Your task to perform on an android device: turn off picture-in-picture Image 0: 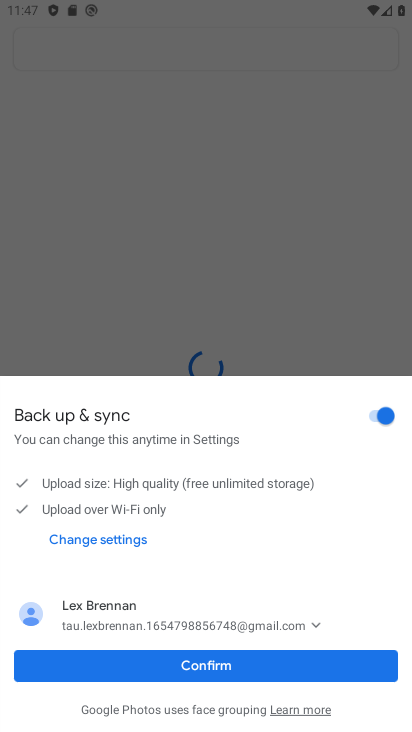
Step 0: press home button
Your task to perform on an android device: turn off picture-in-picture Image 1: 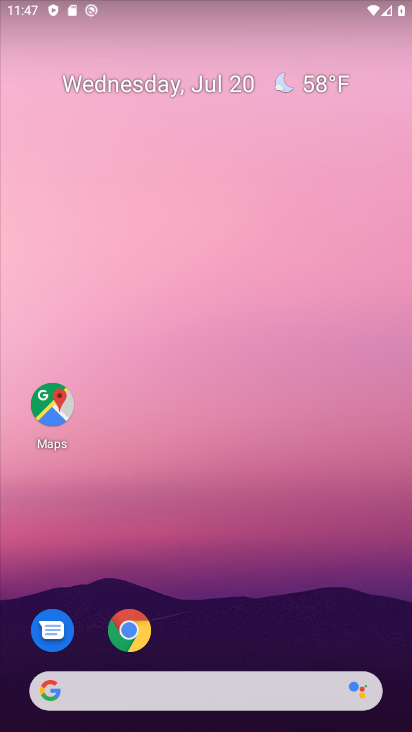
Step 1: drag from (225, 686) to (264, 235)
Your task to perform on an android device: turn off picture-in-picture Image 2: 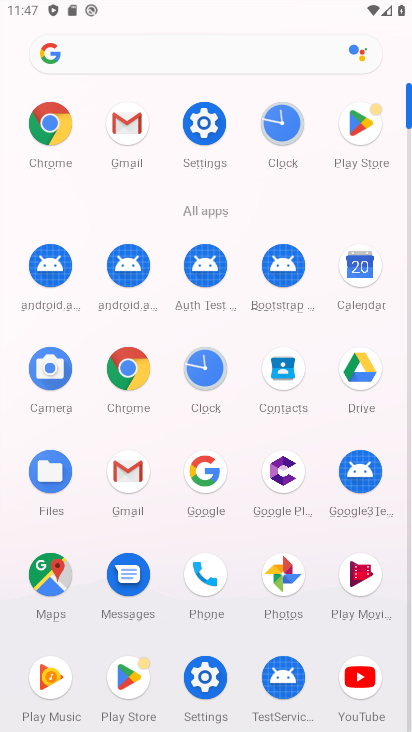
Step 2: click (192, 154)
Your task to perform on an android device: turn off picture-in-picture Image 3: 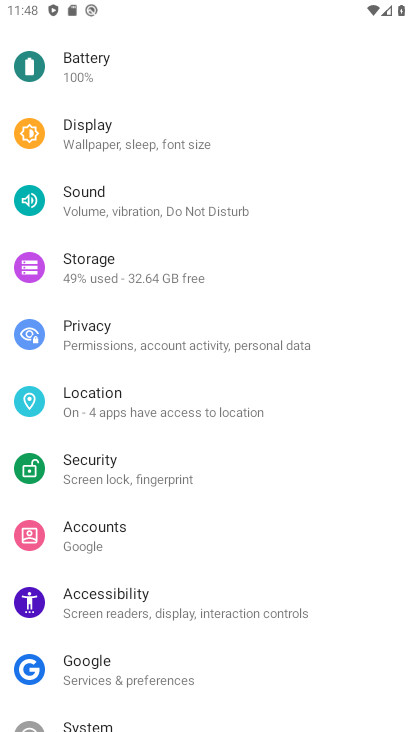
Step 3: press home button
Your task to perform on an android device: turn off picture-in-picture Image 4: 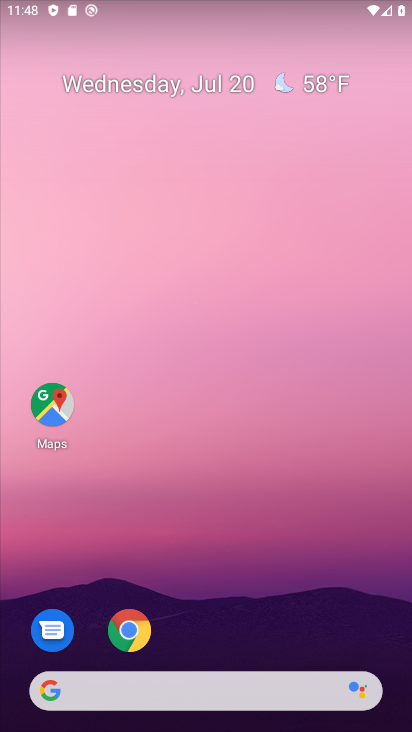
Step 4: click (146, 629)
Your task to perform on an android device: turn off picture-in-picture Image 5: 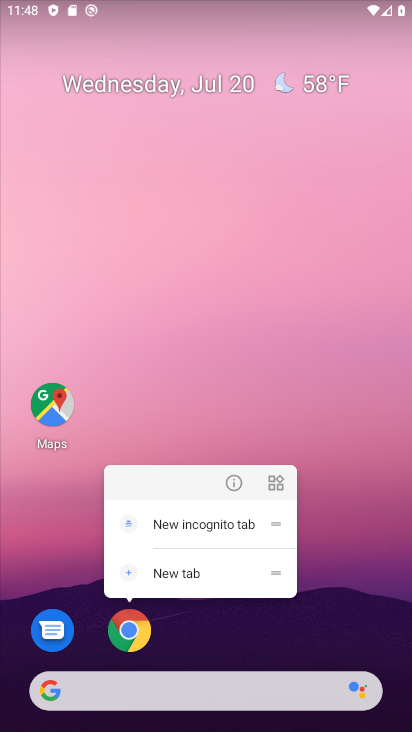
Step 5: click (241, 485)
Your task to perform on an android device: turn off picture-in-picture Image 6: 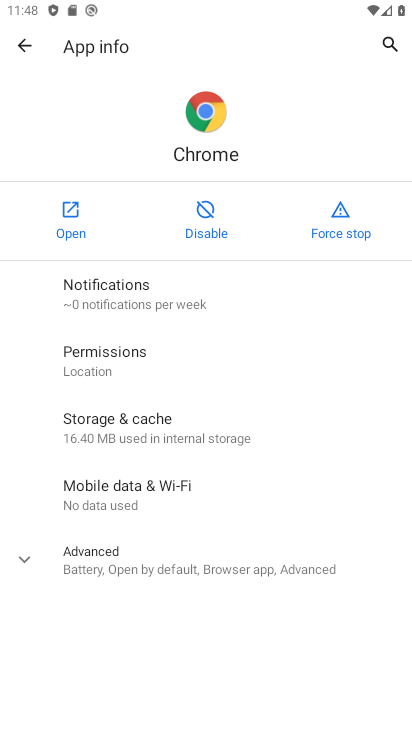
Step 6: click (155, 569)
Your task to perform on an android device: turn off picture-in-picture Image 7: 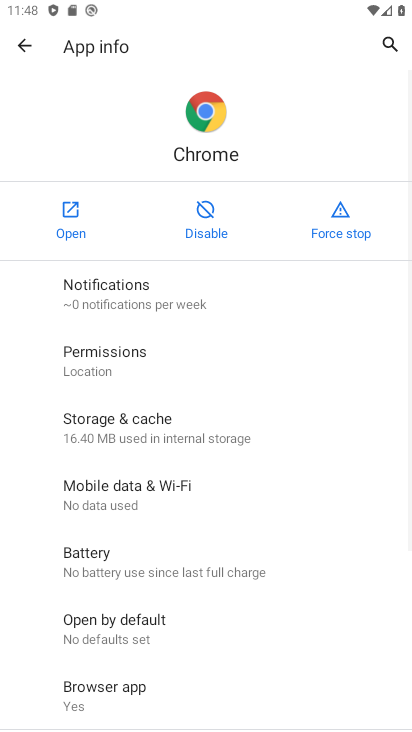
Step 7: drag from (157, 623) to (157, 283)
Your task to perform on an android device: turn off picture-in-picture Image 8: 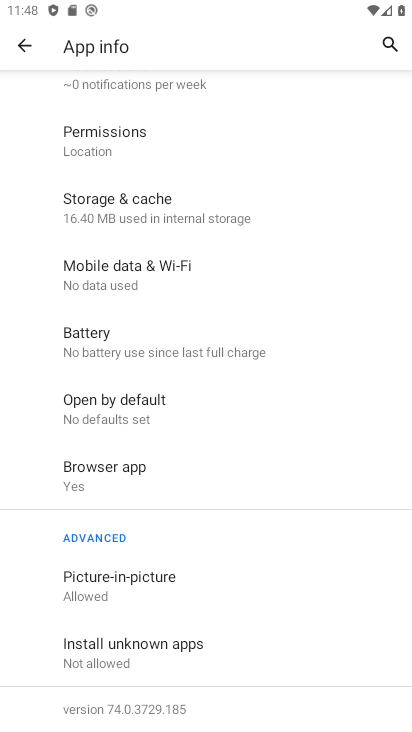
Step 8: click (139, 592)
Your task to perform on an android device: turn off picture-in-picture Image 9: 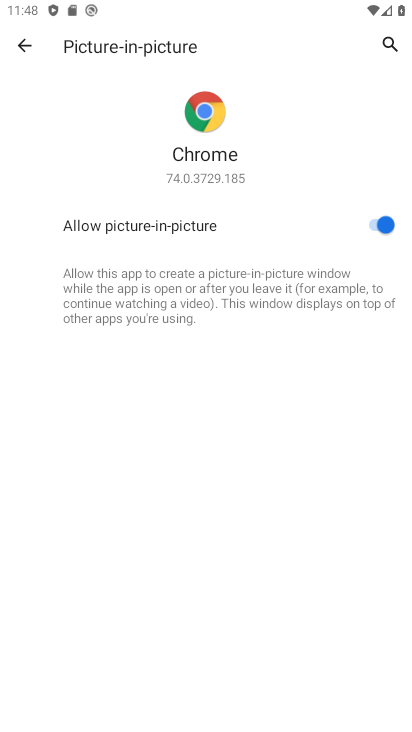
Step 9: click (380, 226)
Your task to perform on an android device: turn off picture-in-picture Image 10: 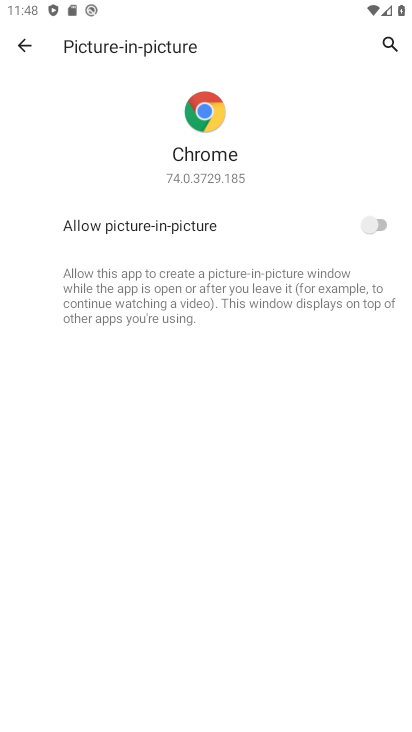
Step 10: task complete